Your task to perform on an android device: See recent photos Image 0: 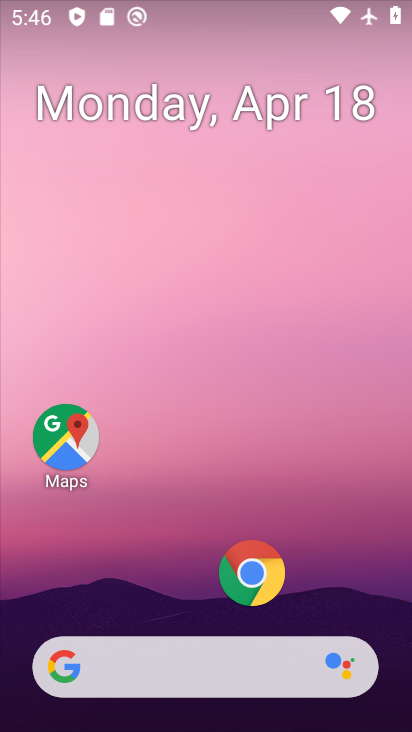
Step 0: drag from (178, 521) to (216, 235)
Your task to perform on an android device: See recent photos Image 1: 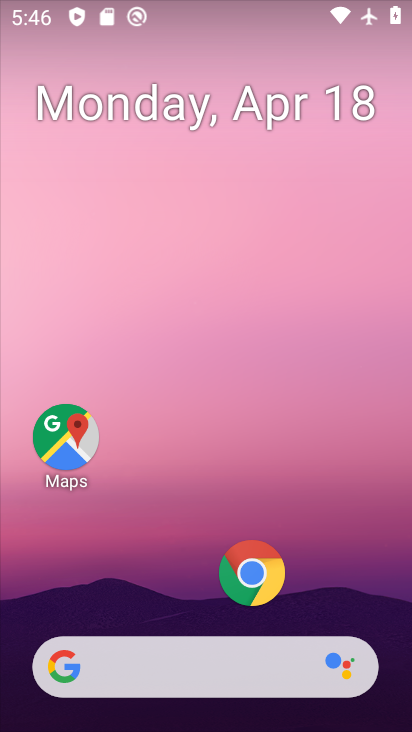
Step 1: drag from (192, 543) to (272, 2)
Your task to perform on an android device: See recent photos Image 2: 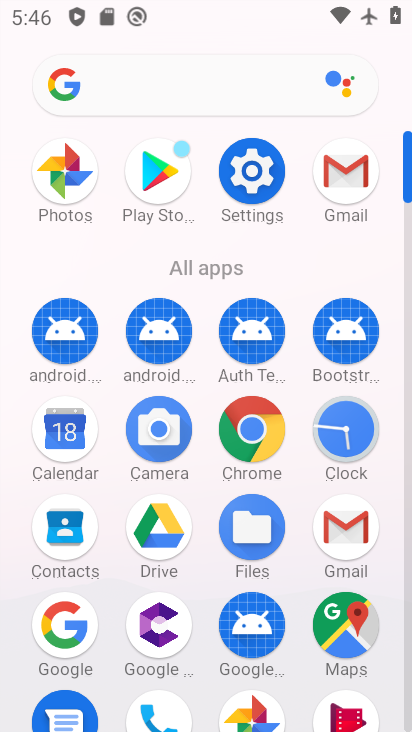
Step 2: click (252, 714)
Your task to perform on an android device: See recent photos Image 3: 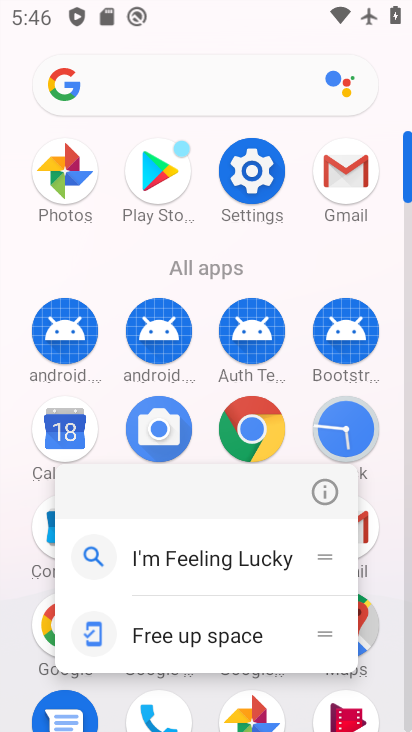
Step 3: click (264, 711)
Your task to perform on an android device: See recent photos Image 4: 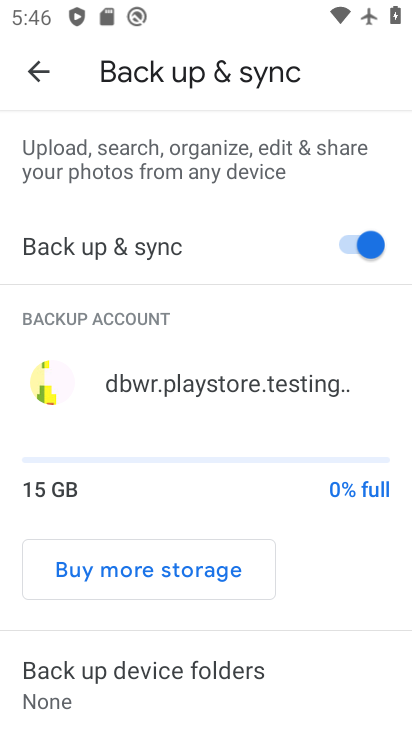
Step 4: click (51, 69)
Your task to perform on an android device: See recent photos Image 5: 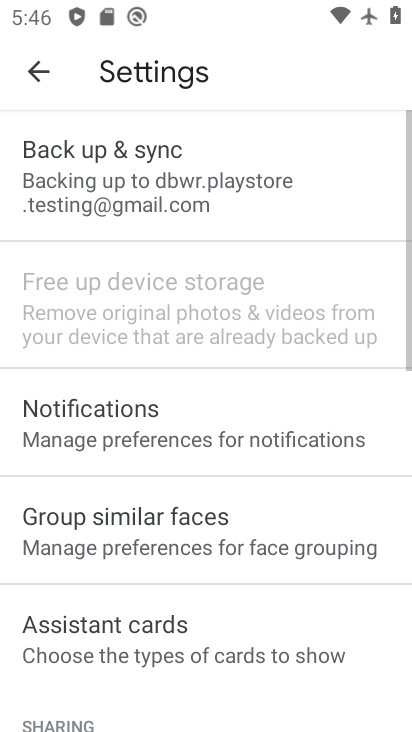
Step 5: click (30, 60)
Your task to perform on an android device: See recent photos Image 6: 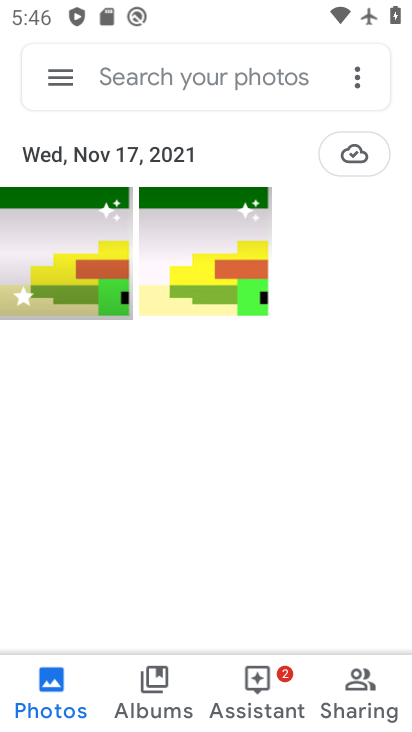
Step 6: task complete